Your task to perform on an android device: toggle sleep mode Image 0: 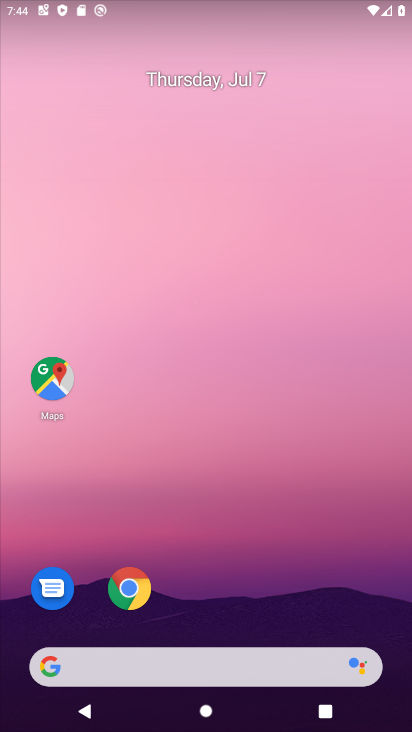
Step 0: drag from (212, 620) to (207, 340)
Your task to perform on an android device: toggle sleep mode Image 1: 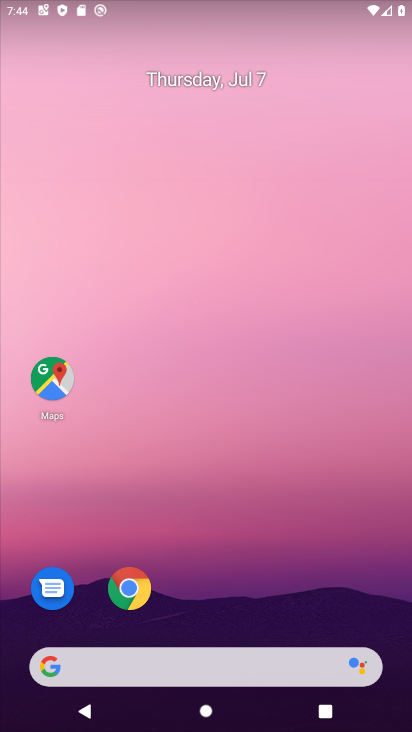
Step 1: drag from (206, 626) to (206, 123)
Your task to perform on an android device: toggle sleep mode Image 2: 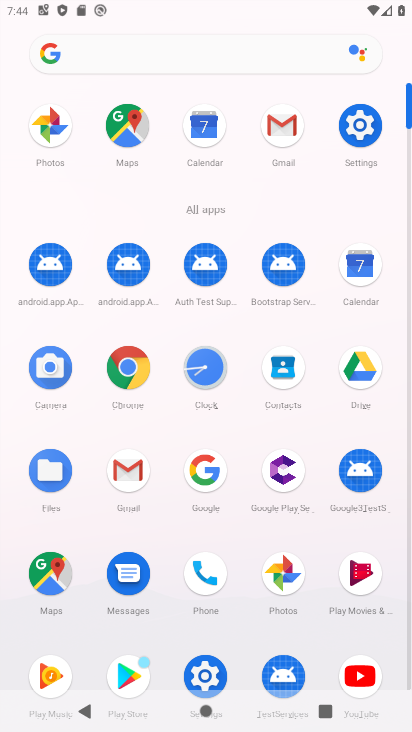
Step 2: click (366, 126)
Your task to perform on an android device: toggle sleep mode Image 3: 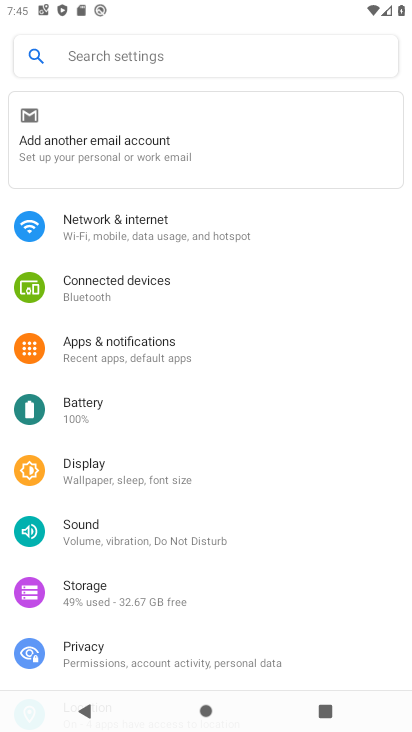
Step 3: click (175, 472)
Your task to perform on an android device: toggle sleep mode Image 4: 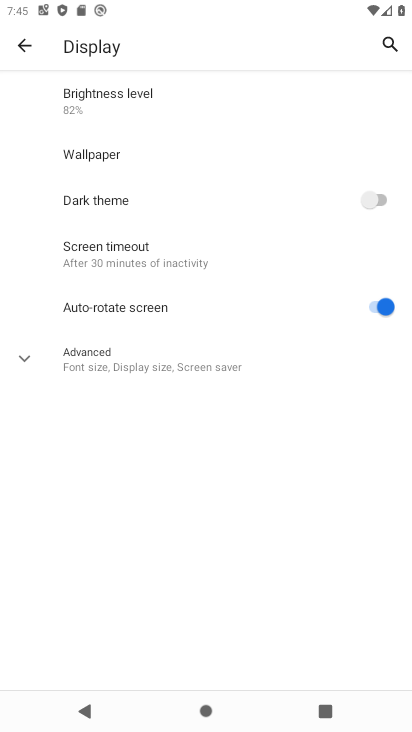
Step 4: click (201, 249)
Your task to perform on an android device: toggle sleep mode Image 5: 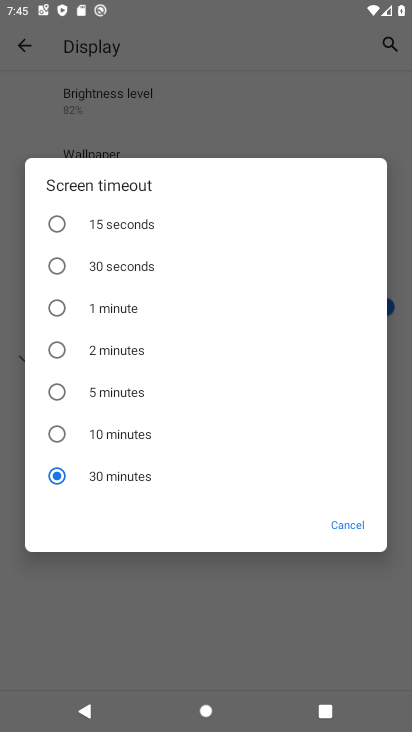
Step 5: task complete